Your task to perform on an android device: toggle translation in the chrome app Image 0: 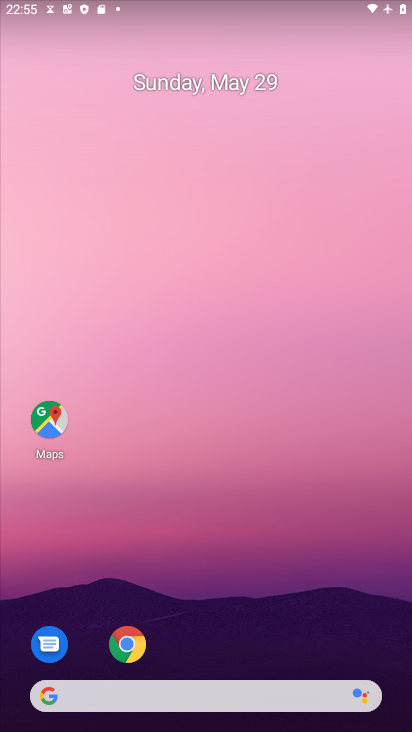
Step 0: drag from (223, 578) to (242, 328)
Your task to perform on an android device: toggle translation in the chrome app Image 1: 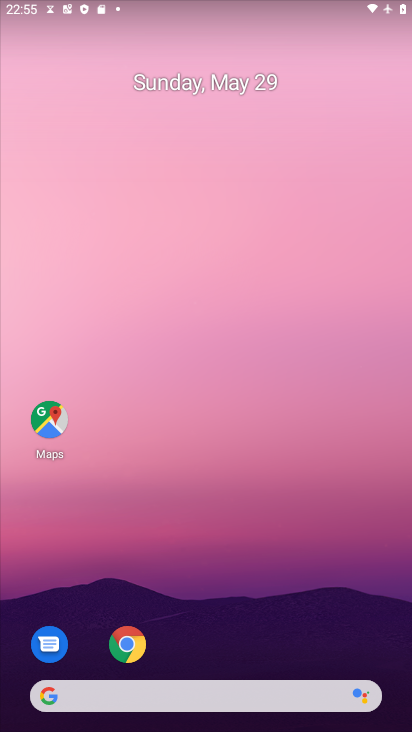
Step 1: drag from (242, 643) to (319, 215)
Your task to perform on an android device: toggle translation in the chrome app Image 2: 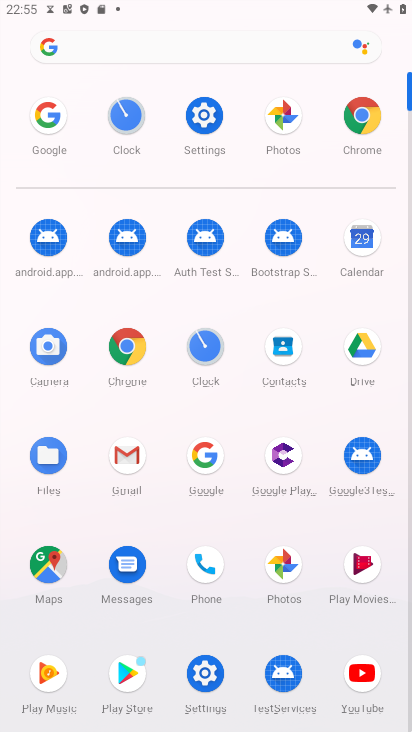
Step 2: click (127, 344)
Your task to perform on an android device: toggle translation in the chrome app Image 3: 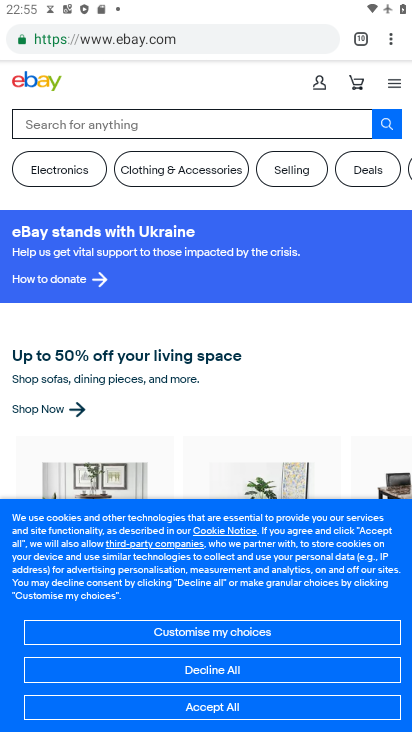
Step 3: click (389, 48)
Your task to perform on an android device: toggle translation in the chrome app Image 4: 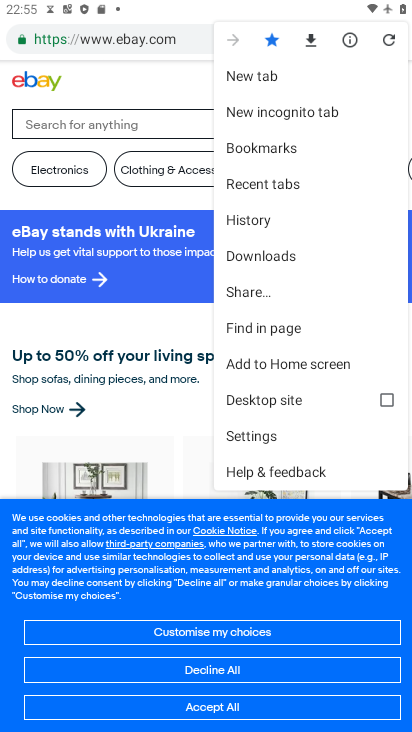
Step 4: task complete